Your task to perform on an android device: Check the news Image 0: 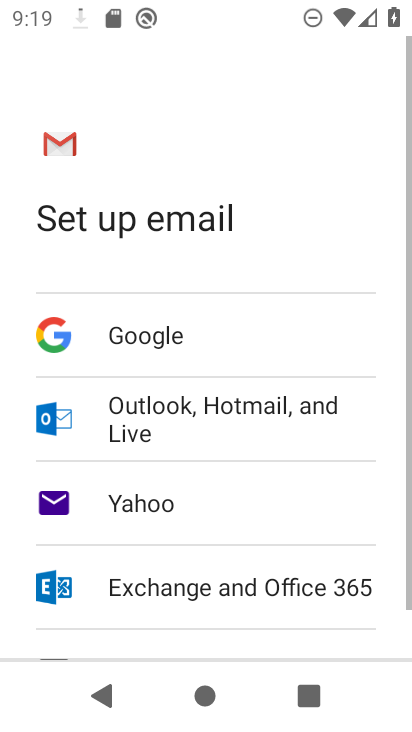
Step 0: press home button
Your task to perform on an android device: Check the news Image 1: 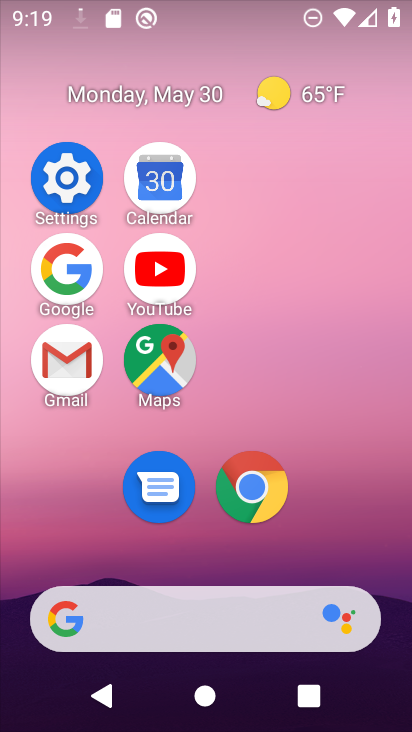
Step 1: click (68, 272)
Your task to perform on an android device: Check the news Image 2: 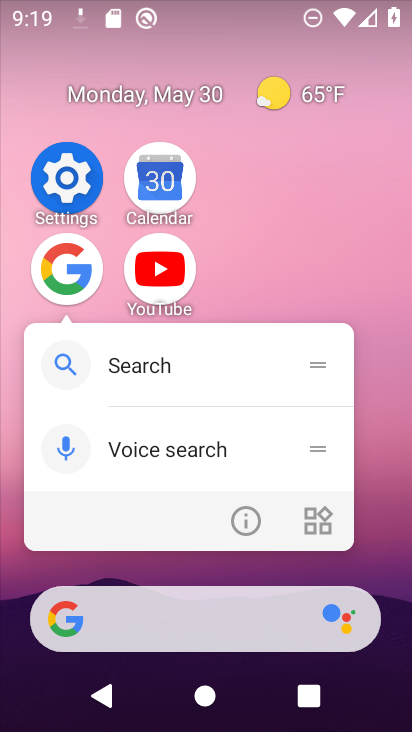
Step 2: click (68, 272)
Your task to perform on an android device: Check the news Image 3: 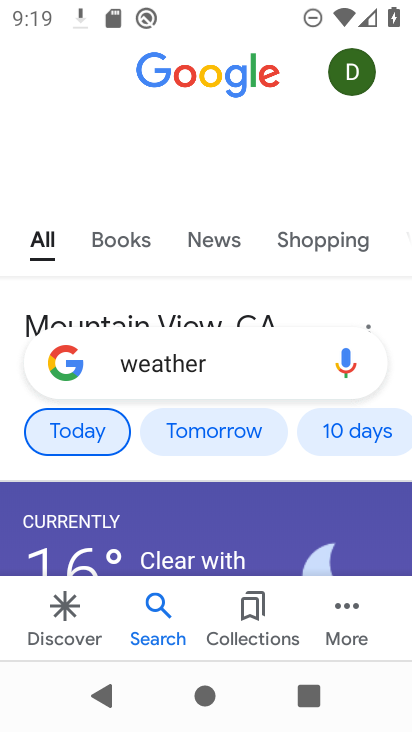
Step 3: click (243, 350)
Your task to perform on an android device: Check the news Image 4: 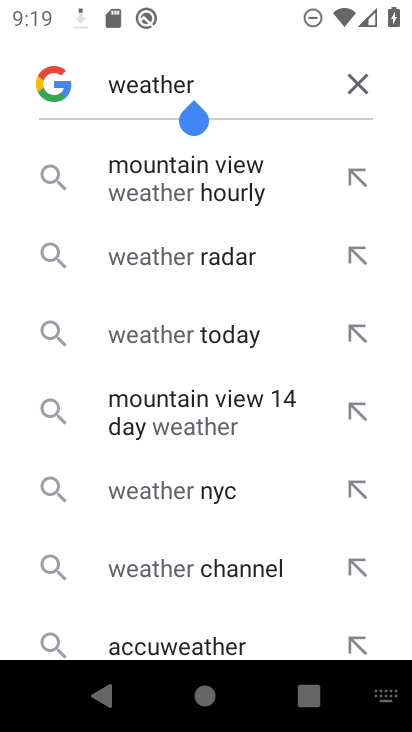
Step 4: click (353, 84)
Your task to perform on an android device: Check the news Image 5: 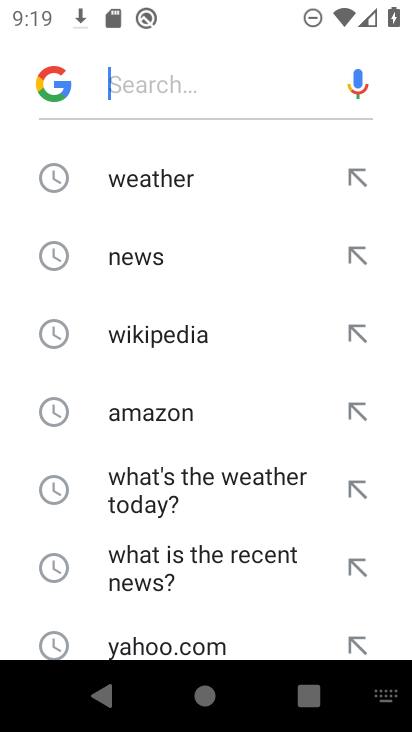
Step 5: click (146, 256)
Your task to perform on an android device: Check the news Image 6: 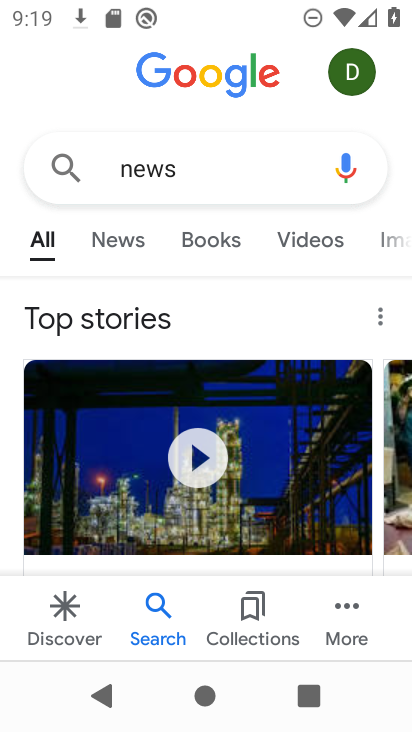
Step 6: task complete